Your task to perform on an android device: Go to notification settings Image 0: 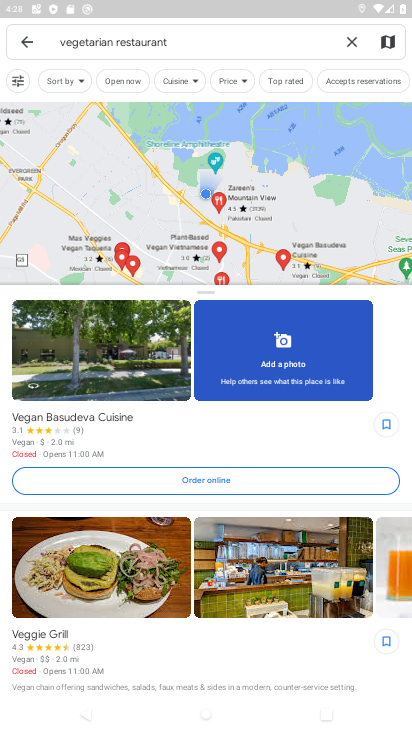
Step 0: press home button
Your task to perform on an android device: Go to notification settings Image 1: 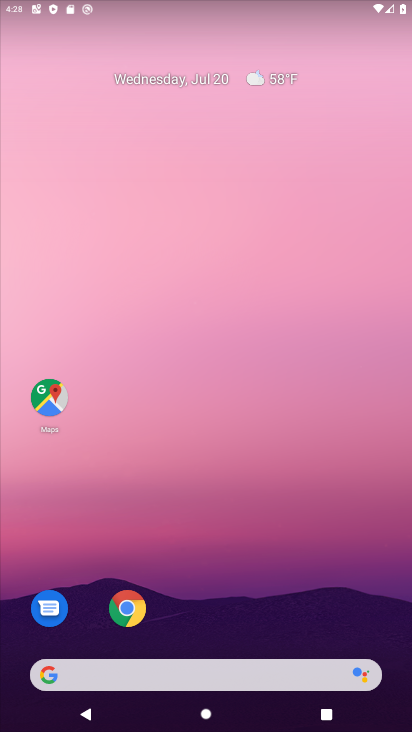
Step 1: drag from (222, 642) to (155, 17)
Your task to perform on an android device: Go to notification settings Image 2: 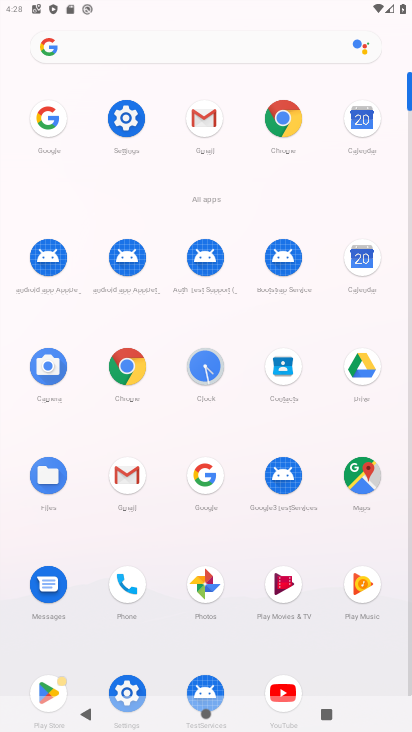
Step 2: click (149, 114)
Your task to perform on an android device: Go to notification settings Image 3: 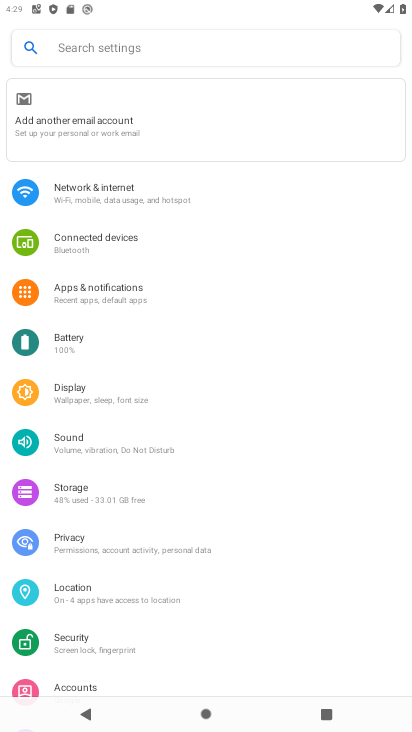
Step 3: click (110, 272)
Your task to perform on an android device: Go to notification settings Image 4: 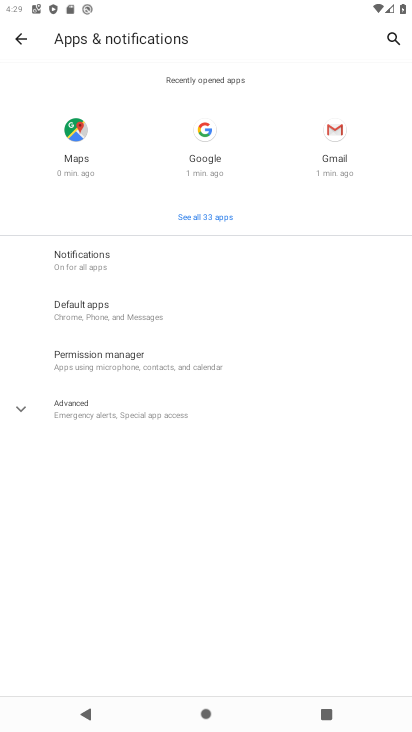
Step 4: click (110, 272)
Your task to perform on an android device: Go to notification settings Image 5: 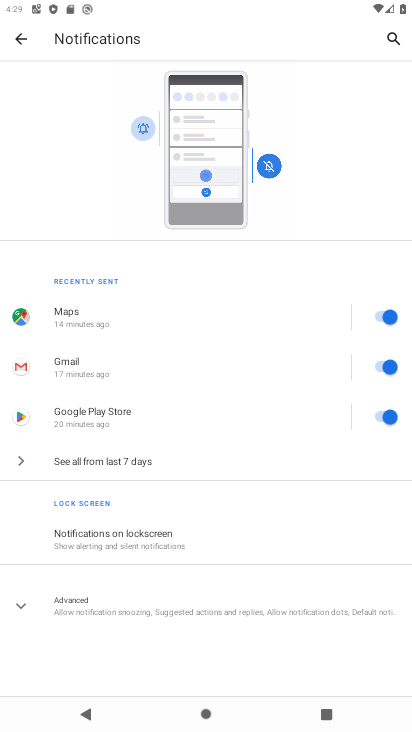
Step 5: click (161, 600)
Your task to perform on an android device: Go to notification settings Image 6: 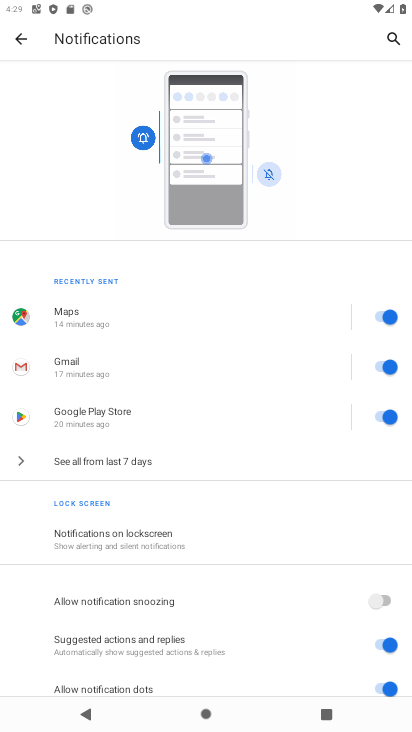
Step 6: click (88, 460)
Your task to perform on an android device: Go to notification settings Image 7: 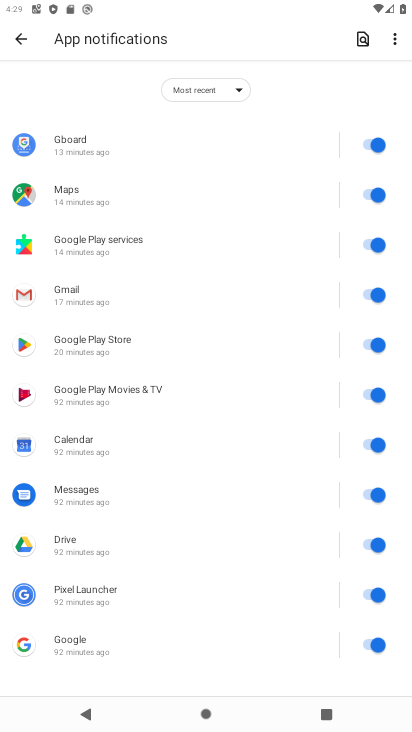
Step 7: click (222, 101)
Your task to perform on an android device: Go to notification settings Image 8: 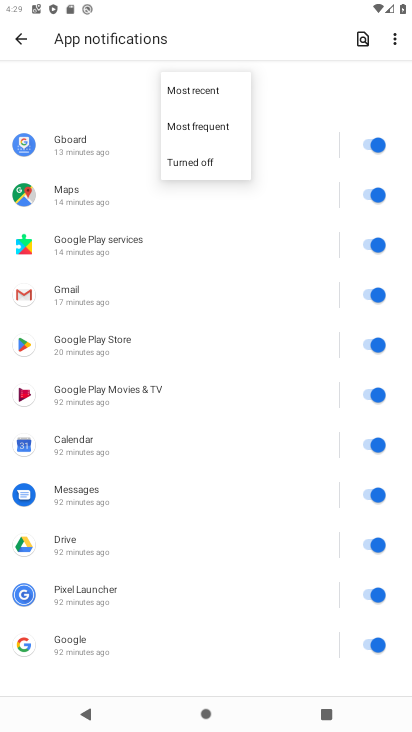
Step 8: task complete